Your task to perform on an android device: Open Google Maps Image 0: 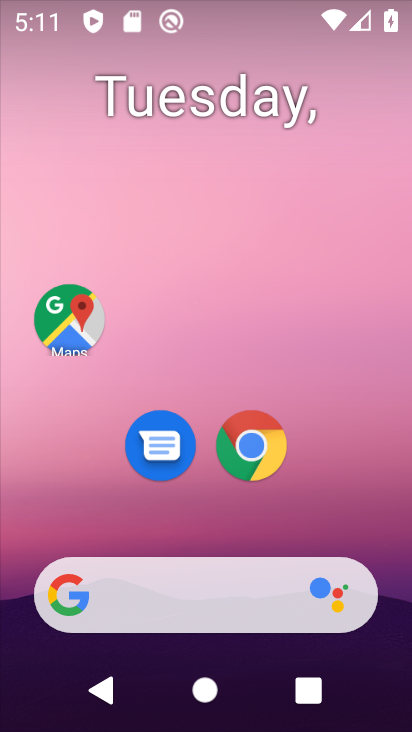
Step 0: drag from (287, 508) to (321, 120)
Your task to perform on an android device: Open Google Maps Image 1: 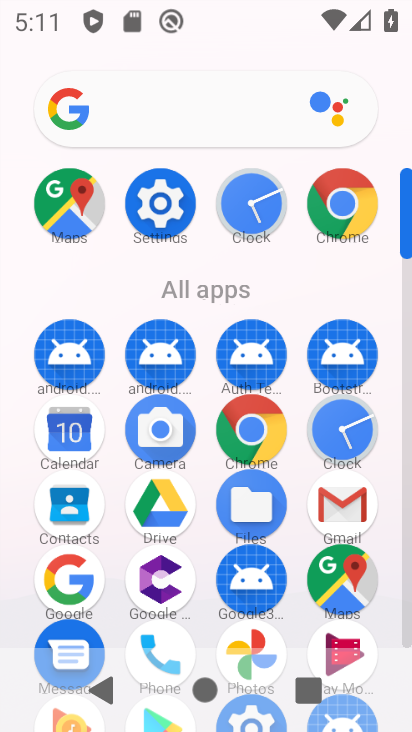
Step 1: click (342, 577)
Your task to perform on an android device: Open Google Maps Image 2: 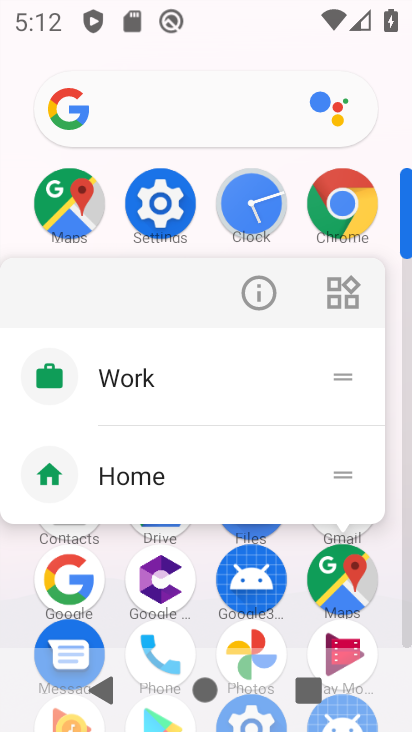
Step 2: click (346, 579)
Your task to perform on an android device: Open Google Maps Image 3: 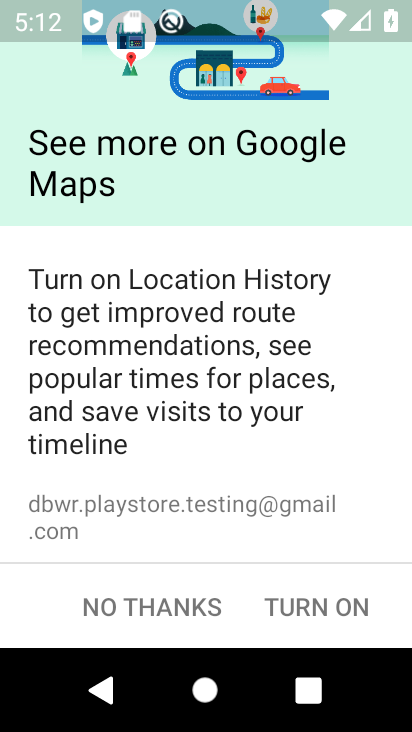
Step 3: click (167, 606)
Your task to perform on an android device: Open Google Maps Image 4: 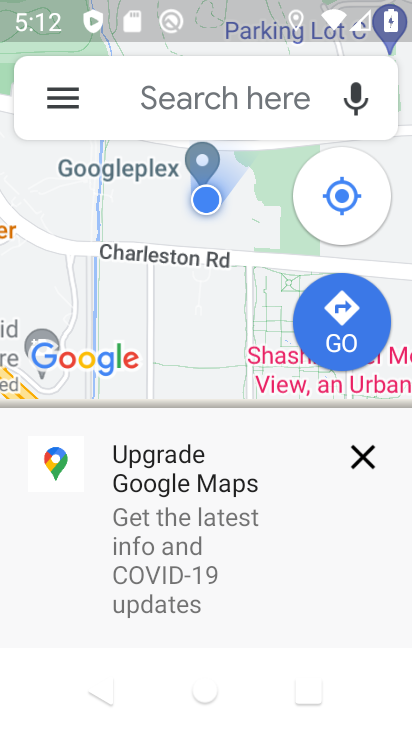
Step 4: task complete